Your task to perform on an android device: create a new album in the google photos Image 0: 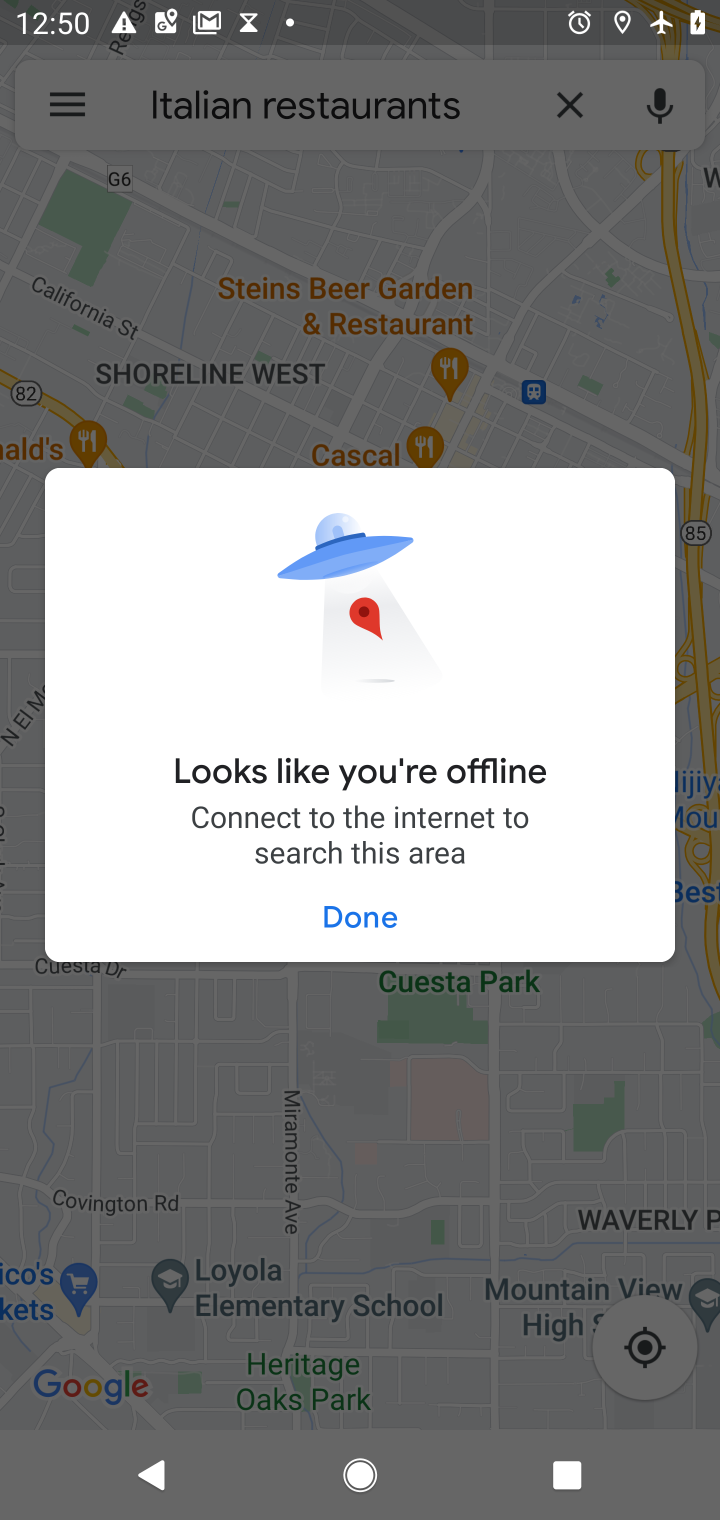
Step 0: click (593, 81)
Your task to perform on an android device: create a new album in the google photos Image 1: 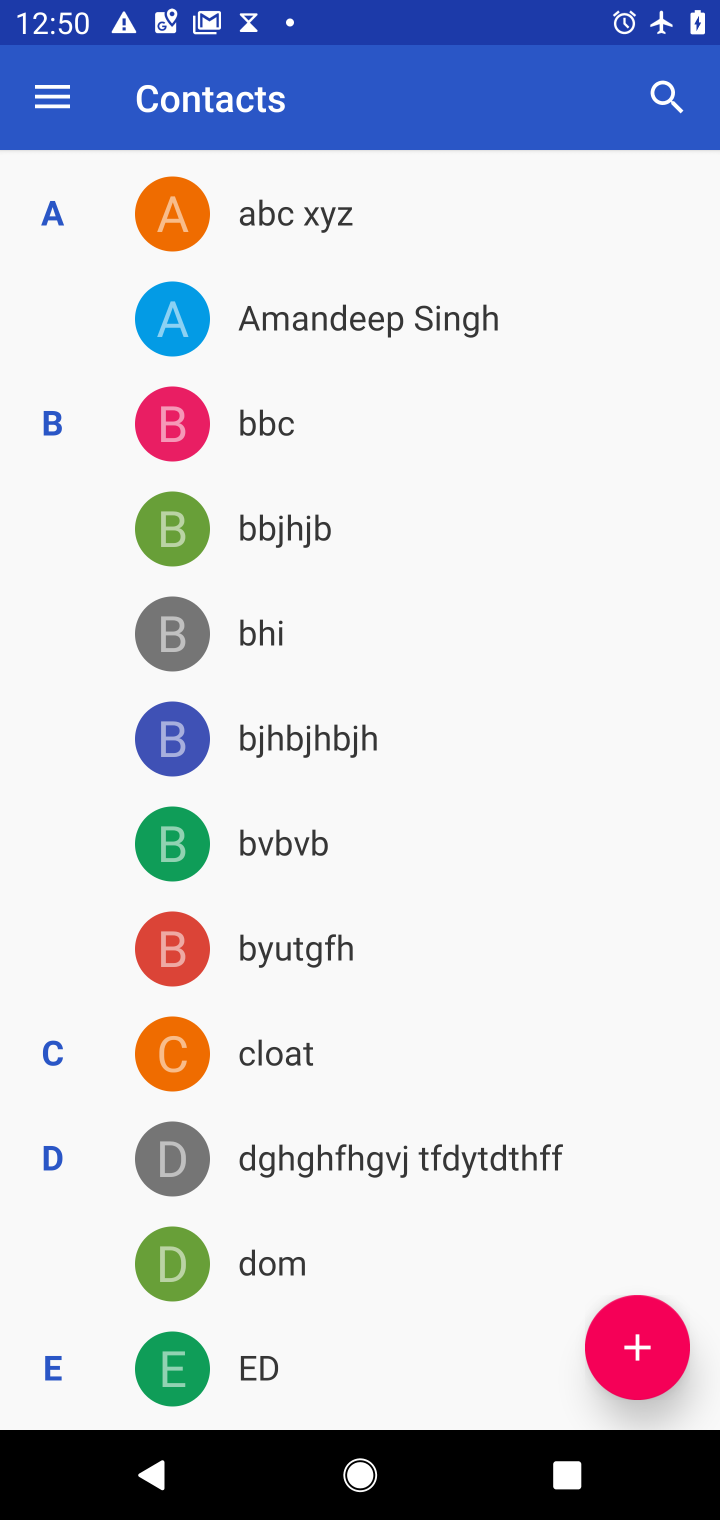
Step 1: press home button
Your task to perform on an android device: create a new album in the google photos Image 2: 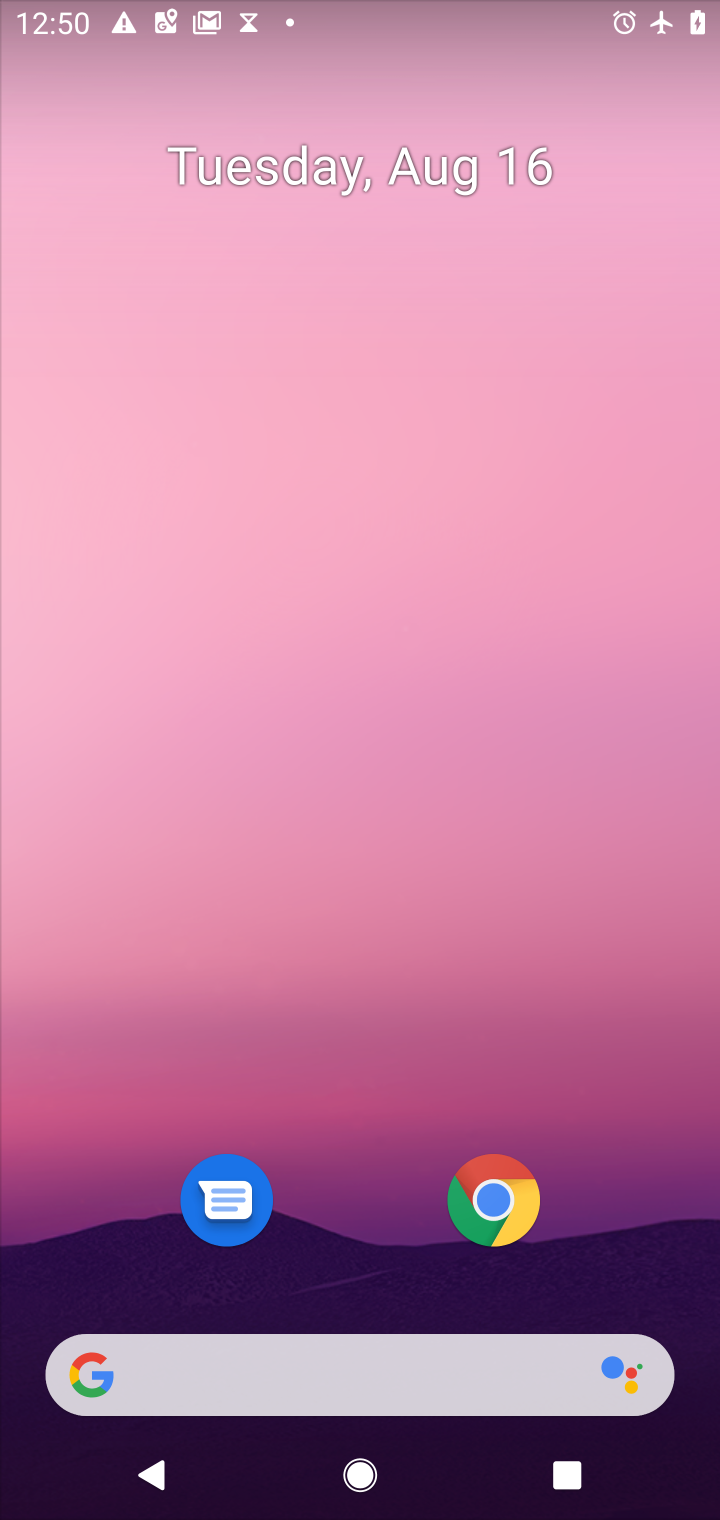
Step 2: click (380, 431)
Your task to perform on an android device: create a new album in the google photos Image 3: 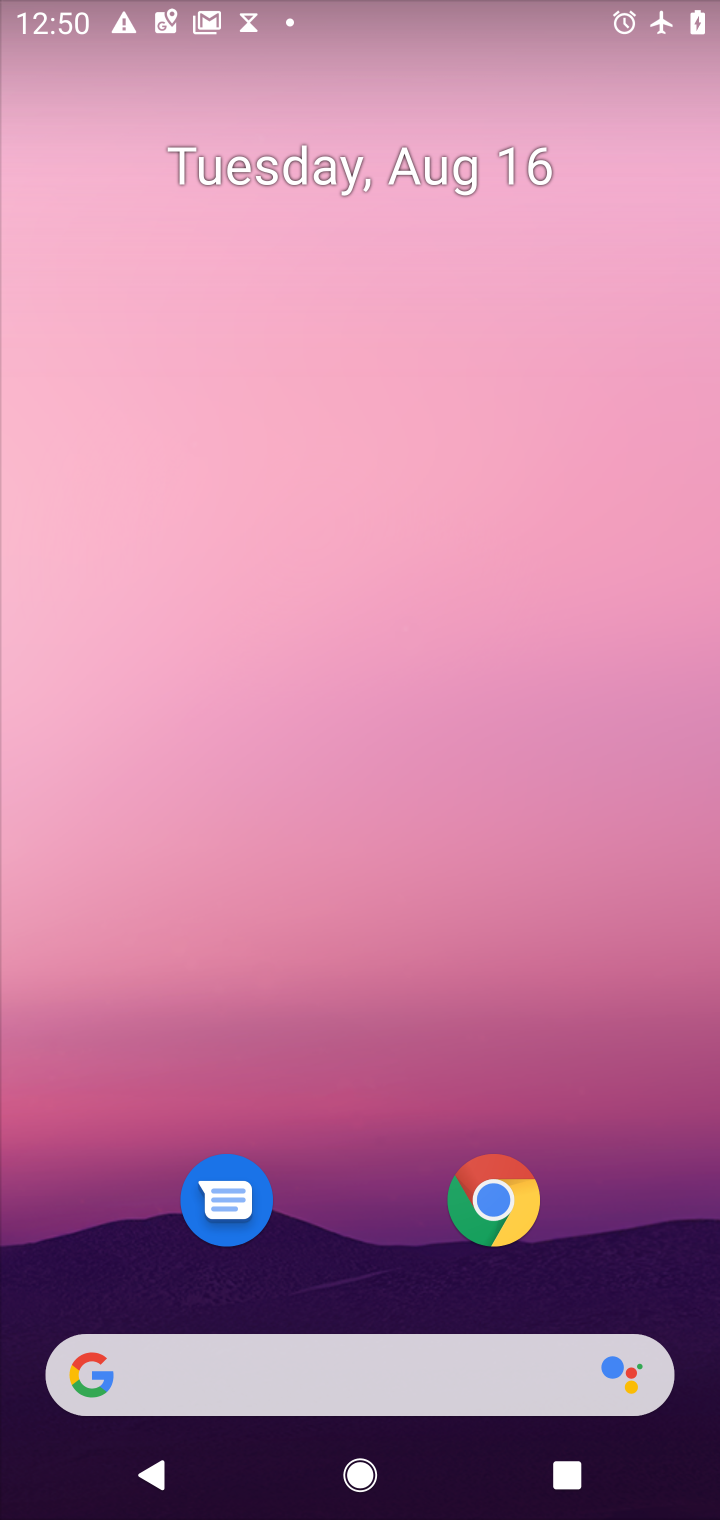
Step 3: drag from (391, 1133) to (394, 169)
Your task to perform on an android device: create a new album in the google photos Image 4: 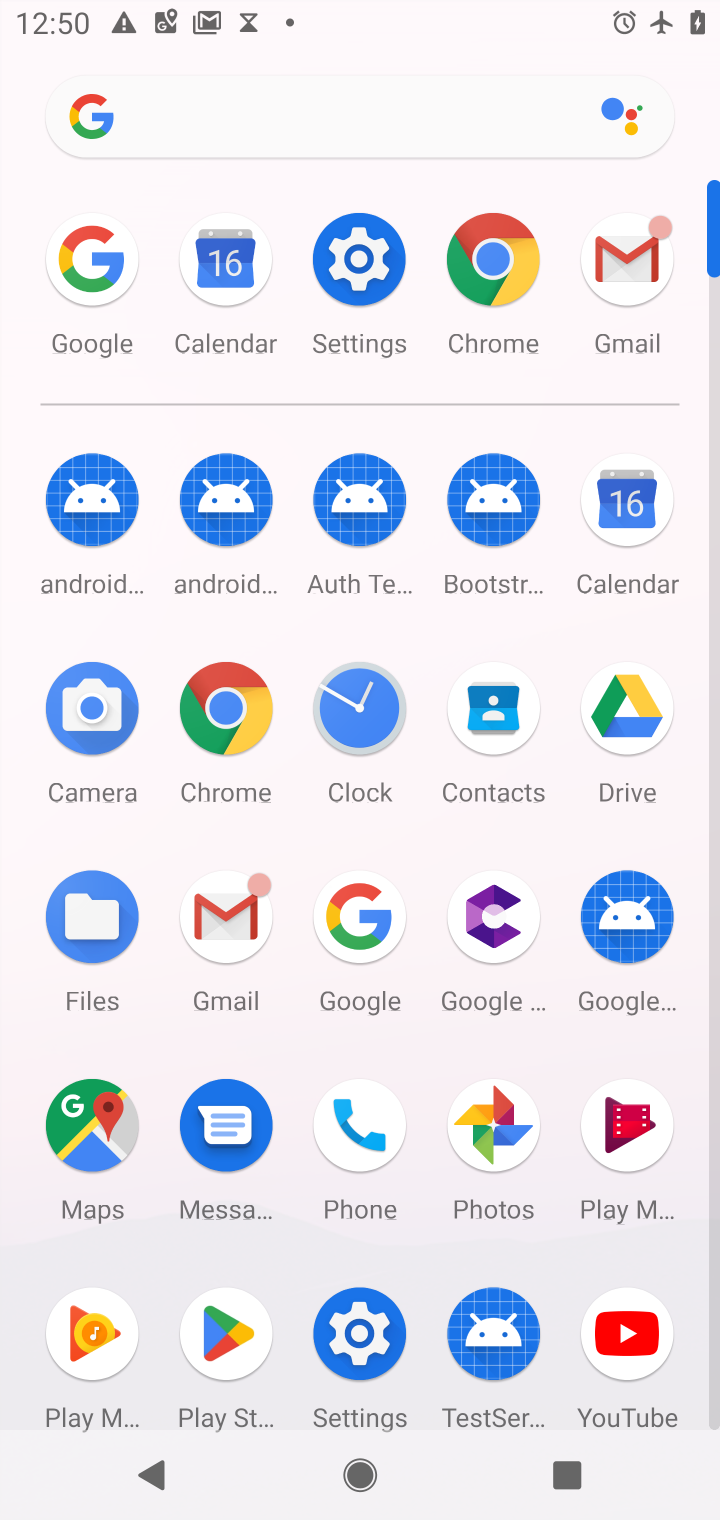
Step 4: click (518, 1102)
Your task to perform on an android device: create a new album in the google photos Image 5: 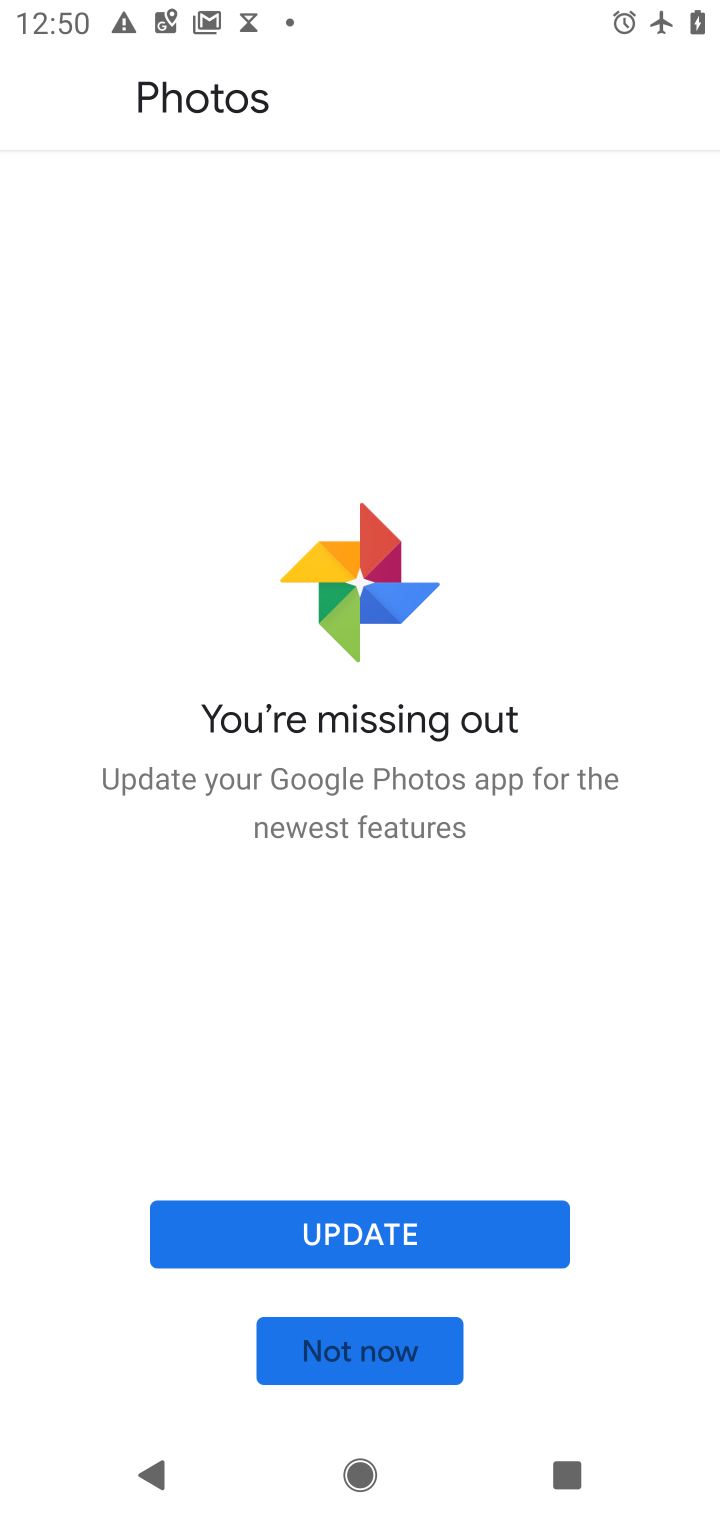
Step 5: click (392, 1337)
Your task to perform on an android device: create a new album in the google photos Image 6: 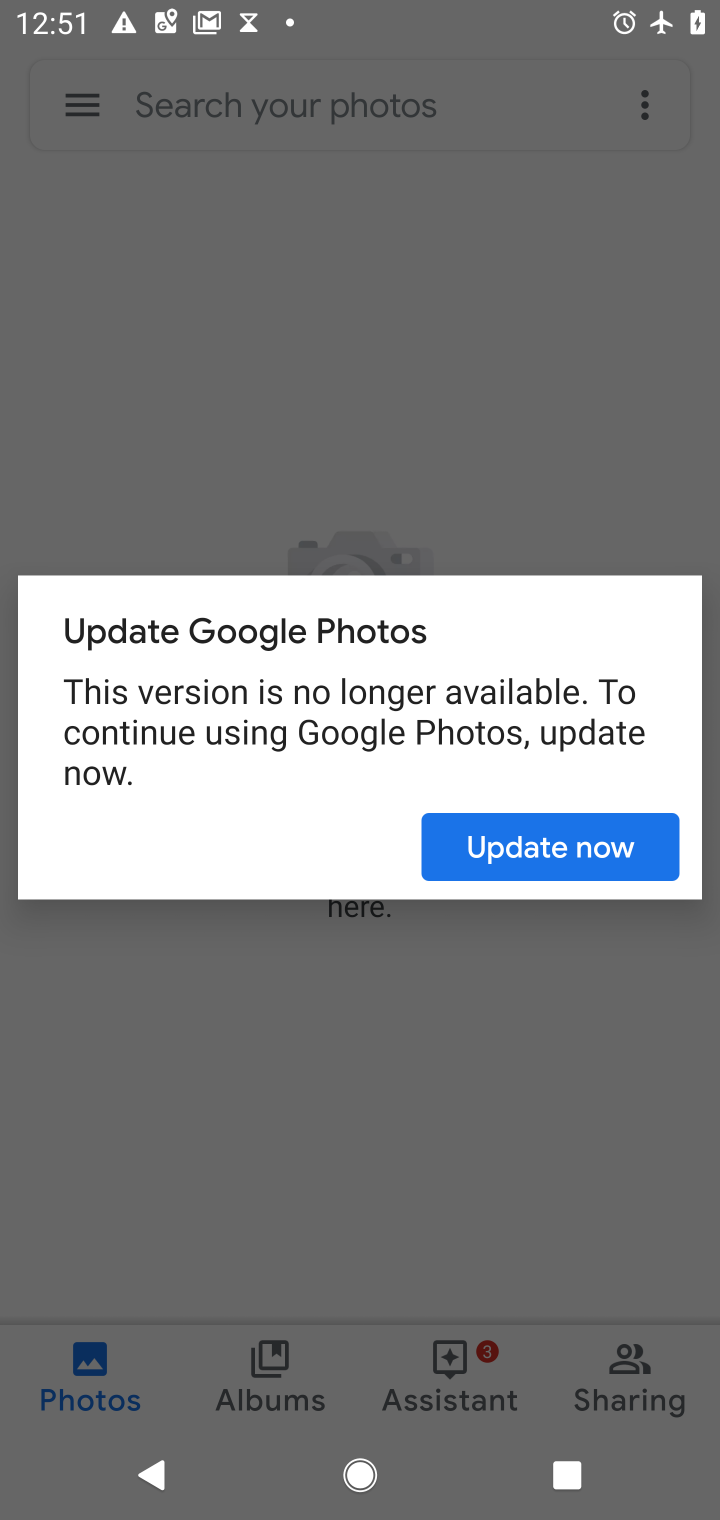
Step 6: click (442, 509)
Your task to perform on an android device: create a new album in the google photos Image 7: 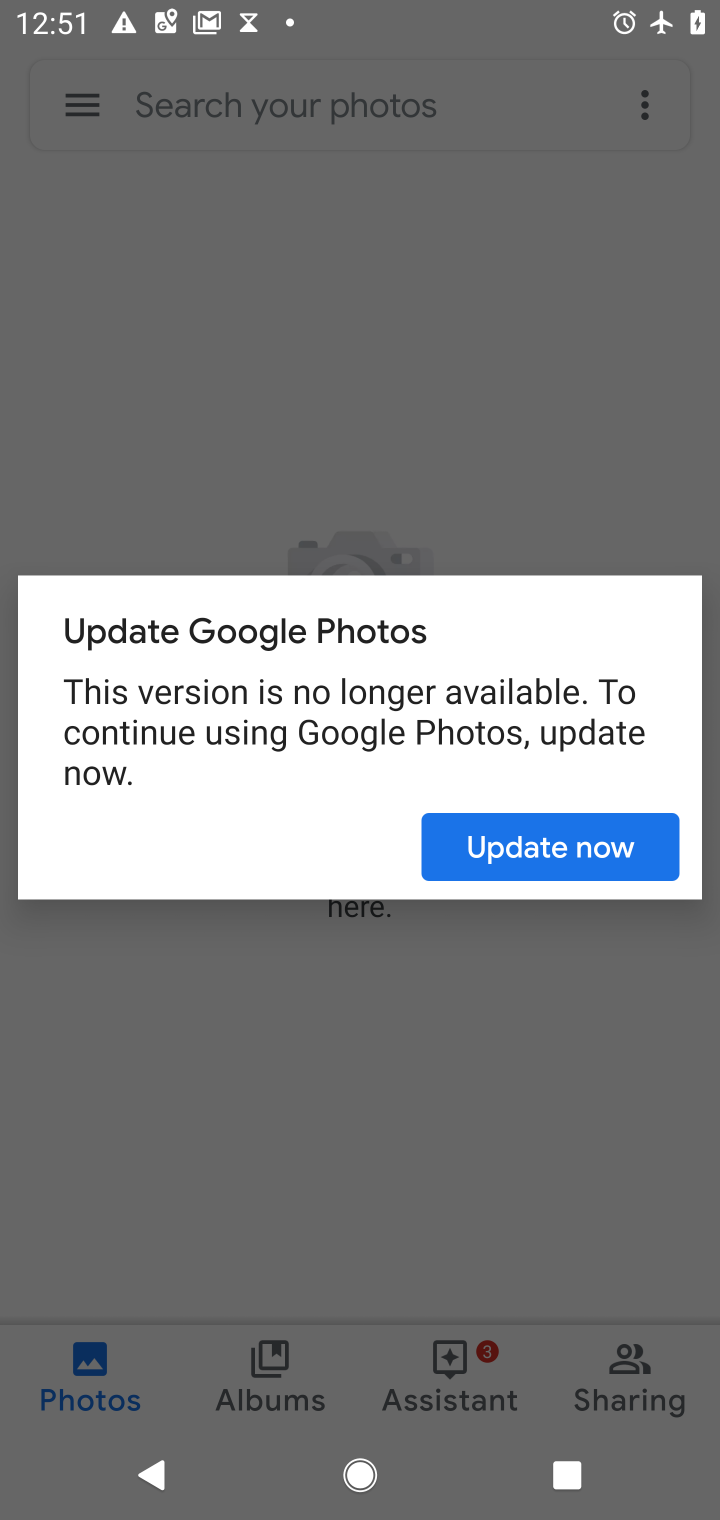
Step 7: click (522, 855)
Your task to perform on an android device: create a new album in the google photos Image 8: 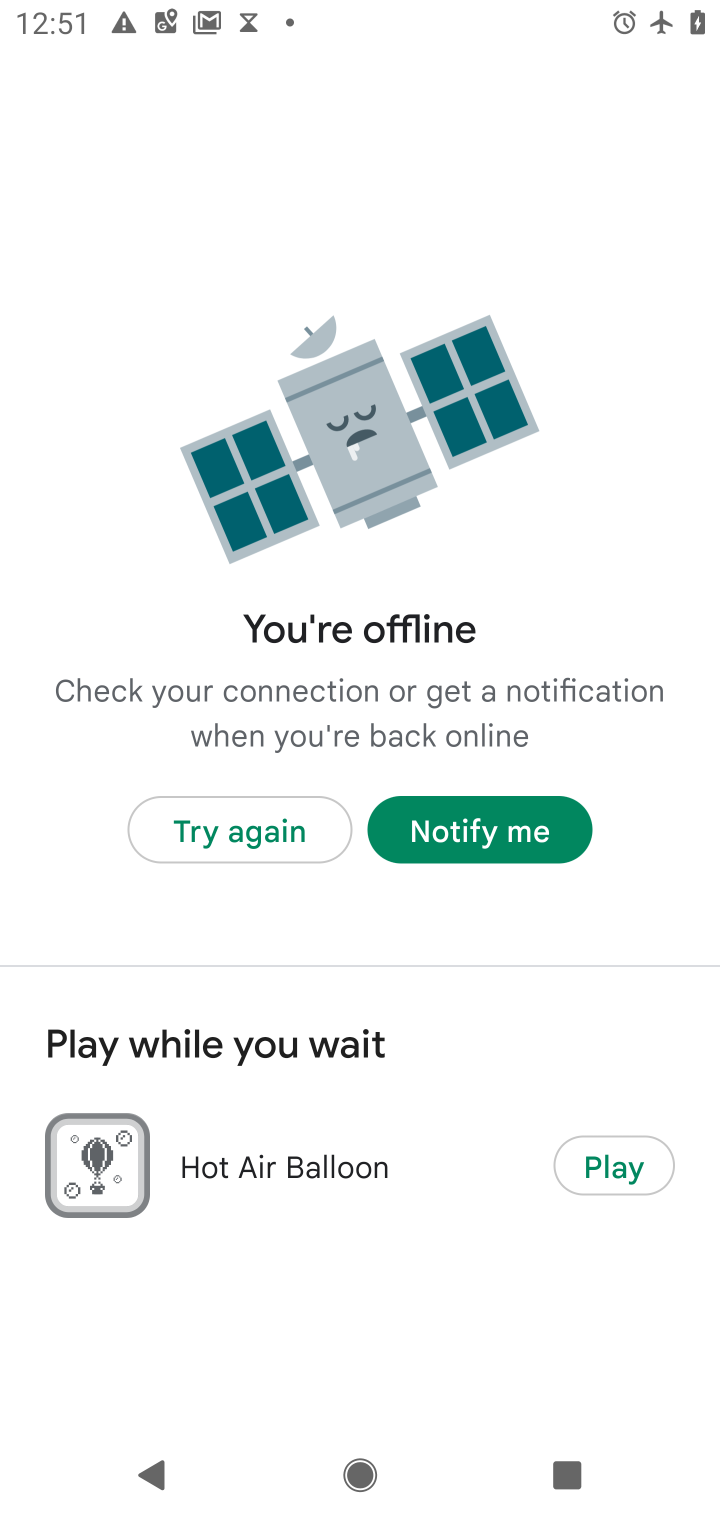
Step 8: press back button
Your task to perform on an android device: create a new album in the google photos Image 9: 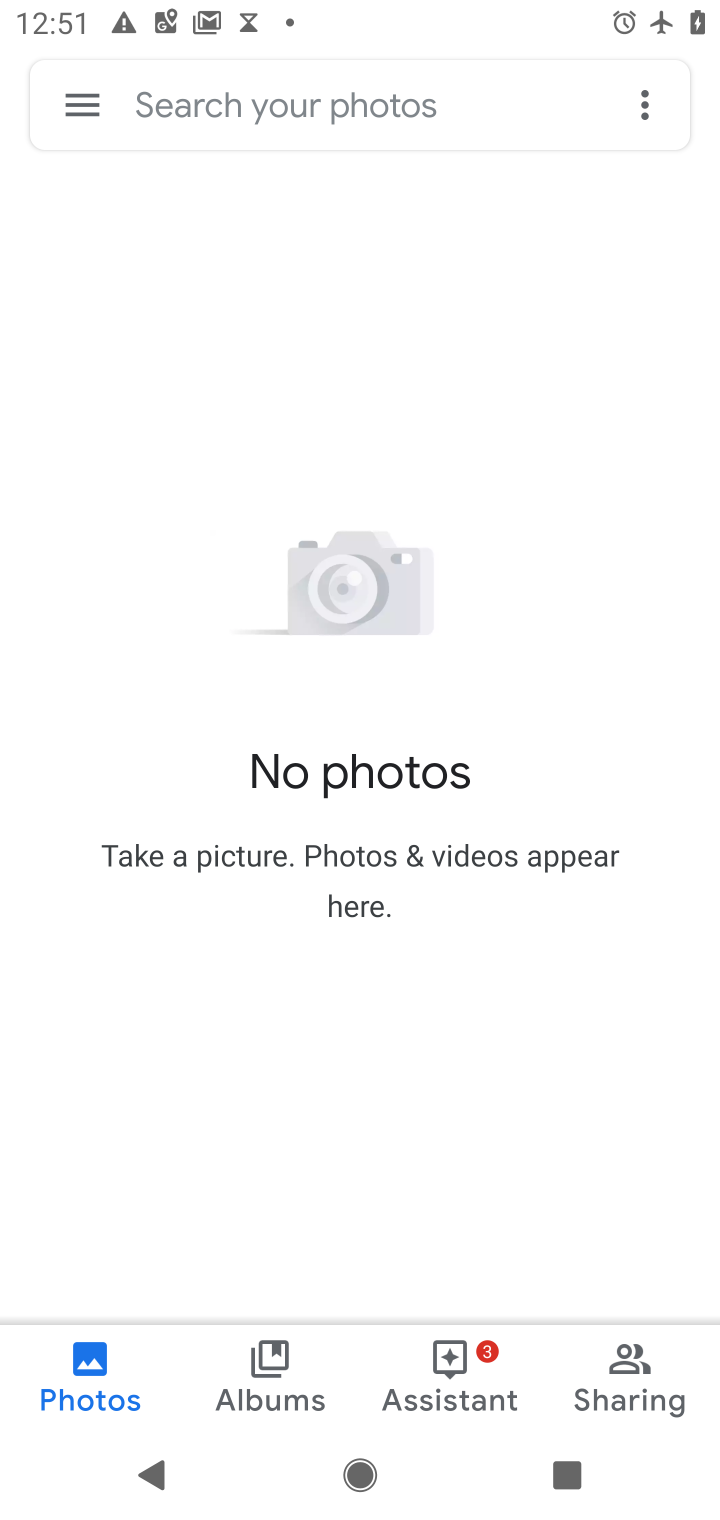
Step 9: click (649, 112)
Your task to perform on an android device: create a new album in the google photos Image 10: 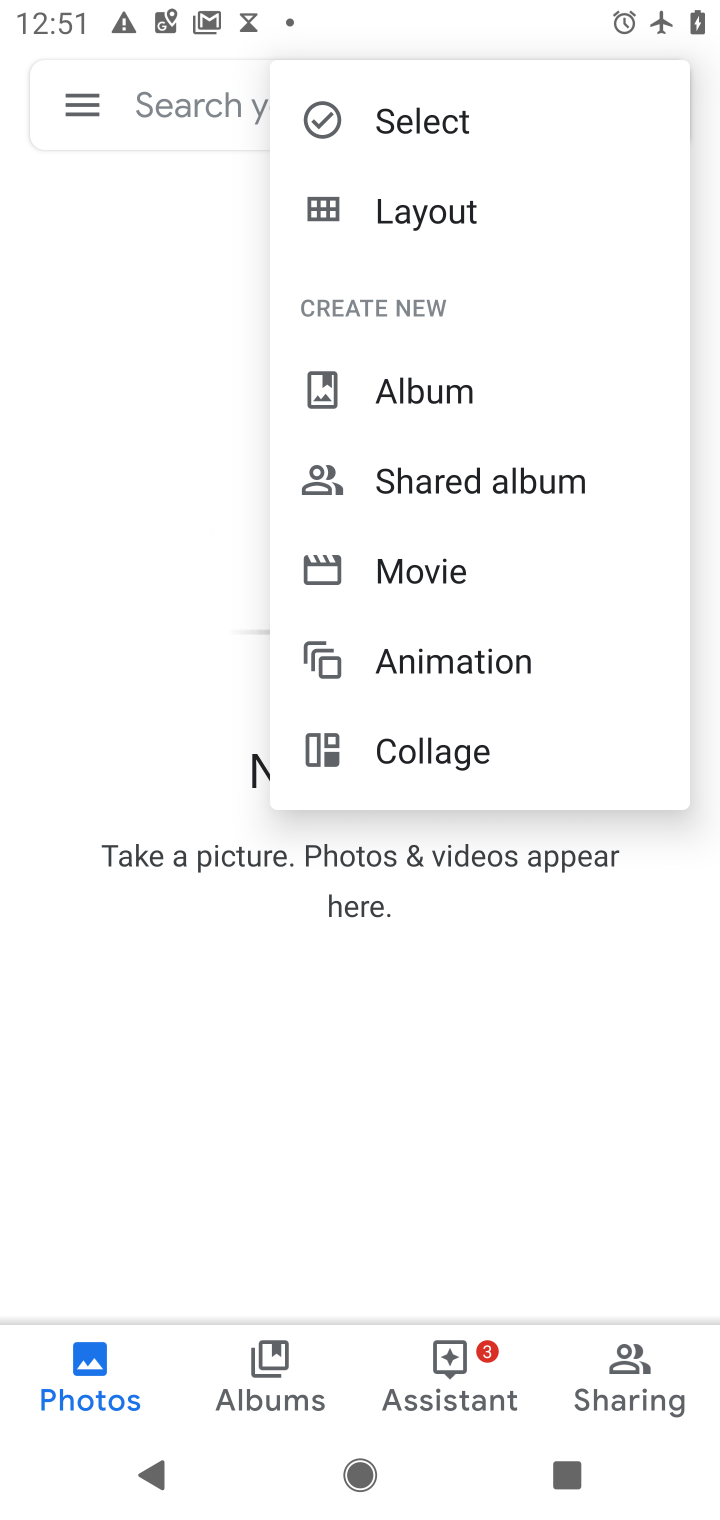
Step 10: click (374, 381)
Your task to perform on an android device: create a new album in the google photos Image 11: 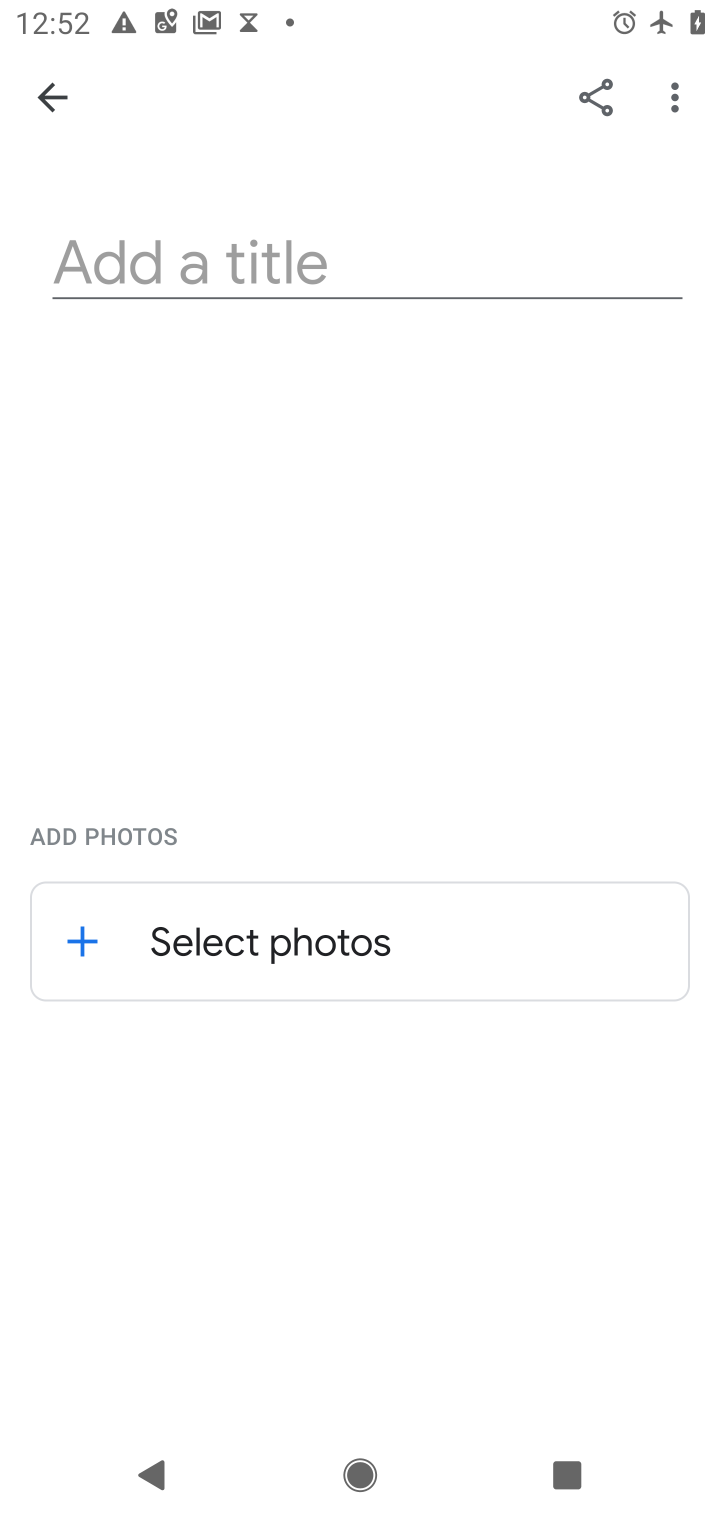
Step 11: click (211, 228)
Your task to perform on an android device: create a new album in the google photos Image 12: 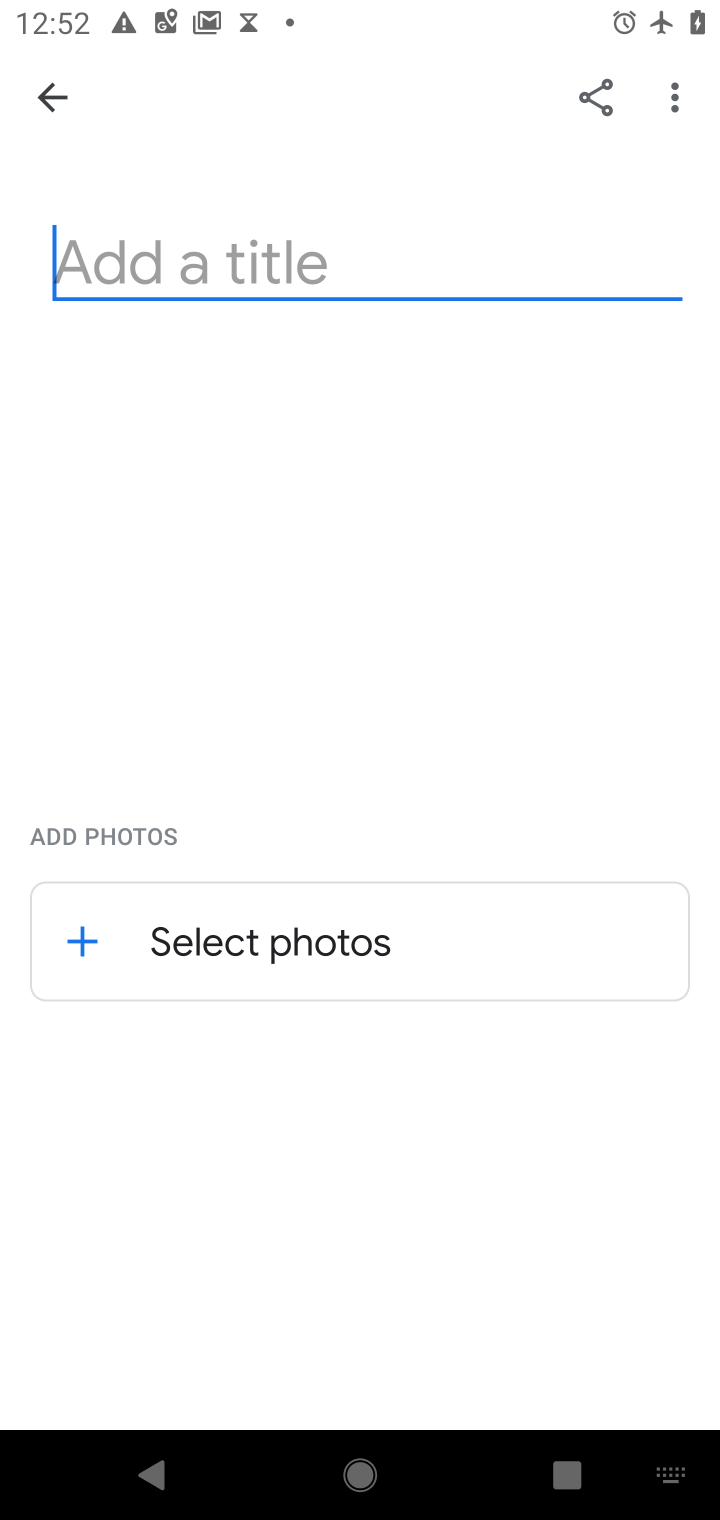
Step 12: type "fdhfg"
Your task to perform on an android device: create a new album in the google photos Image 13: 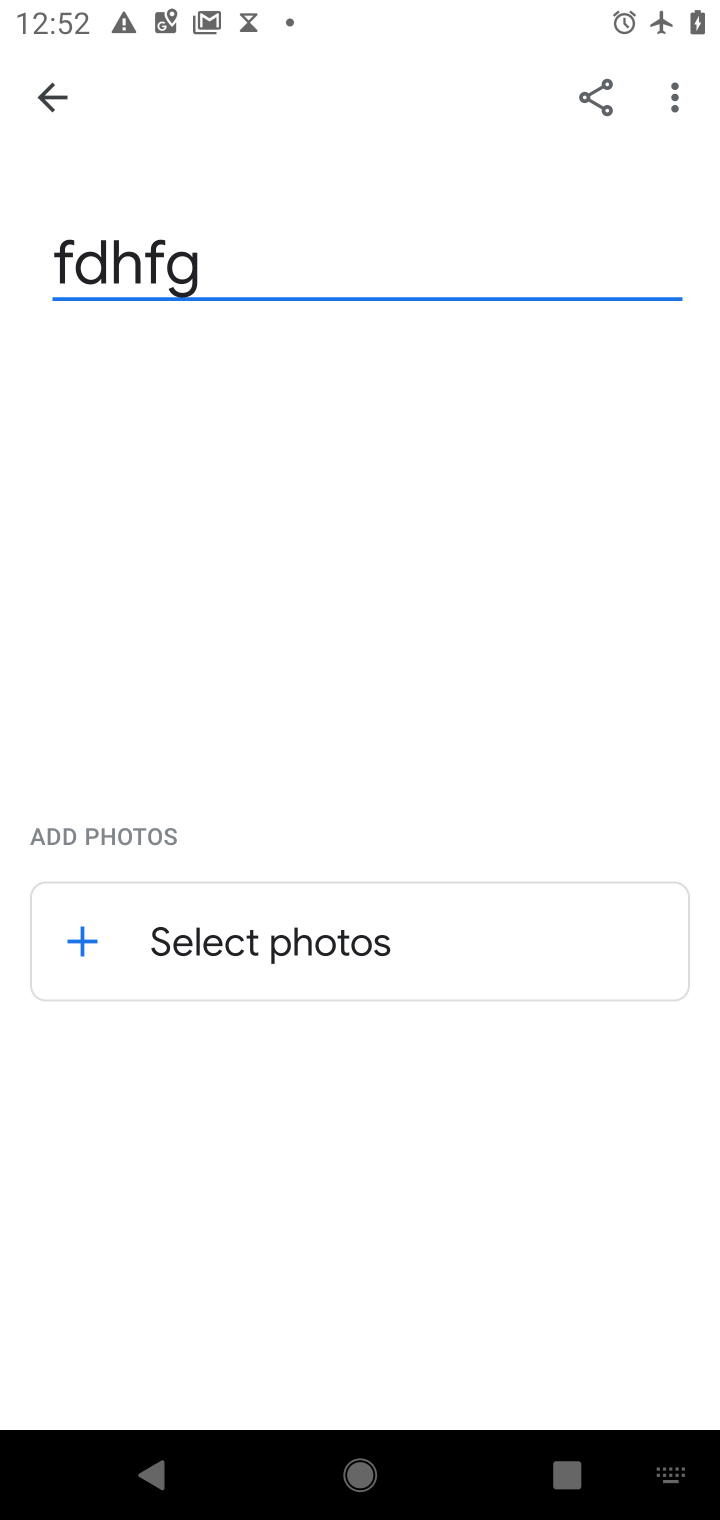
Step 13: click (296, 921)
Your task to perform on an android device: create a new album in the google photos Image 14: 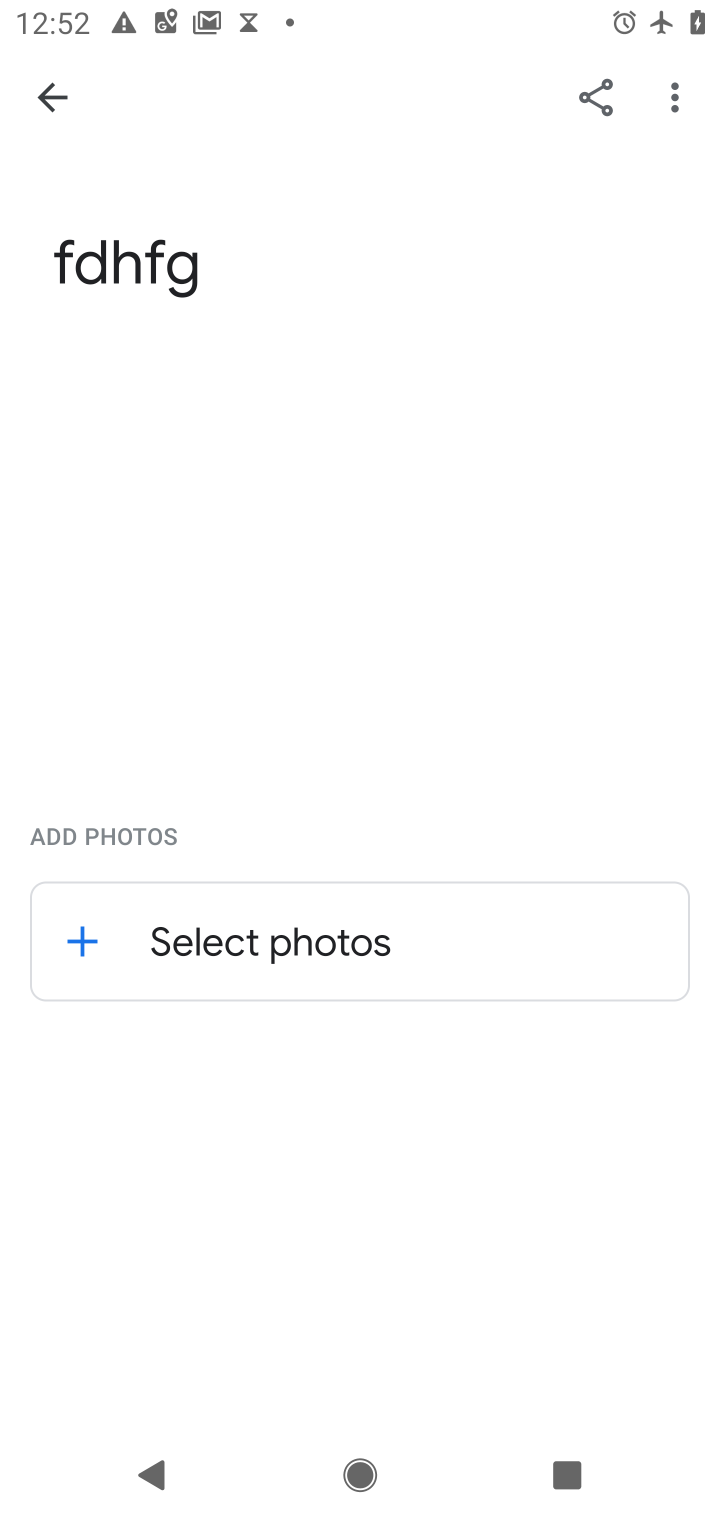
Step 14: click (67, 968)
Your task to perform on an android device: create a new album in the google photos Image 15: 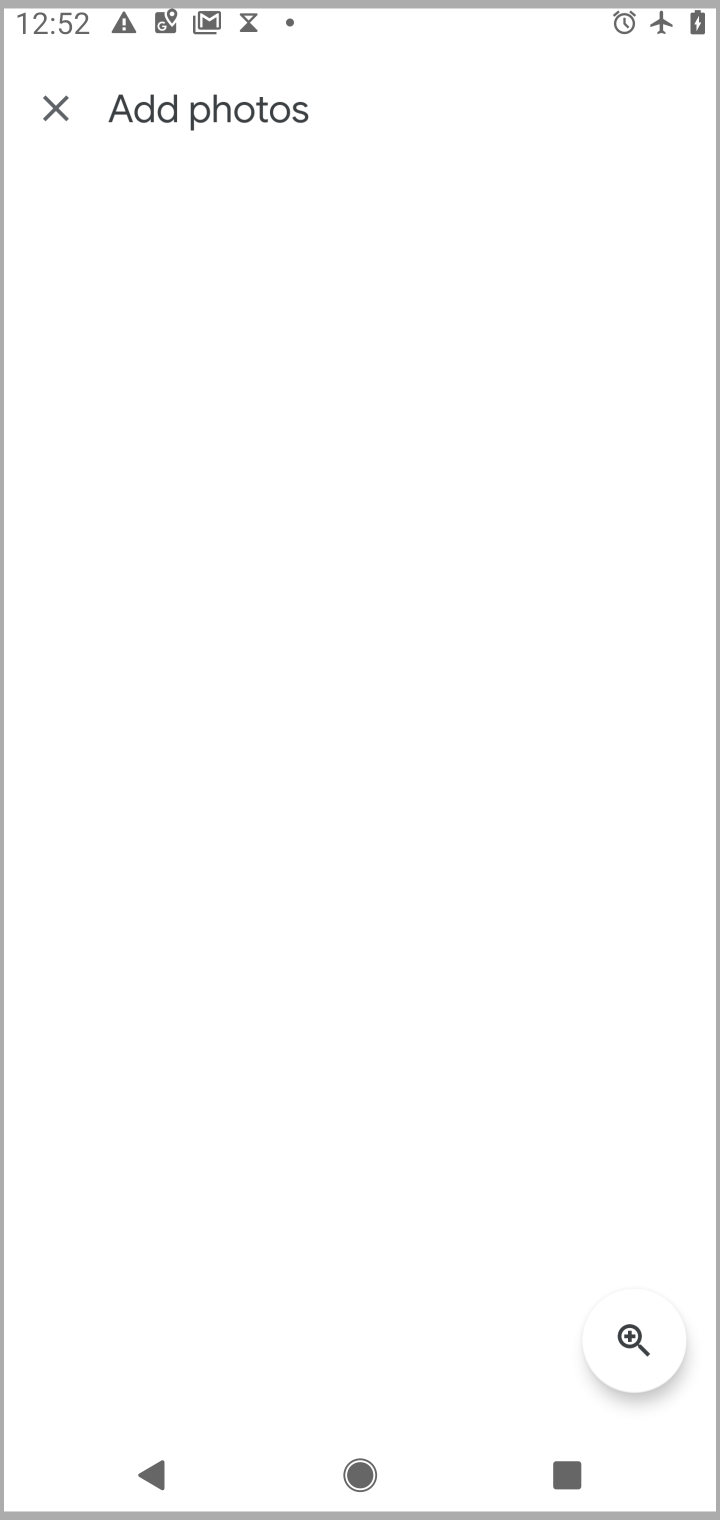
Step 15: task complete